Your task to perform on an android device: Open Amazon Image 0: 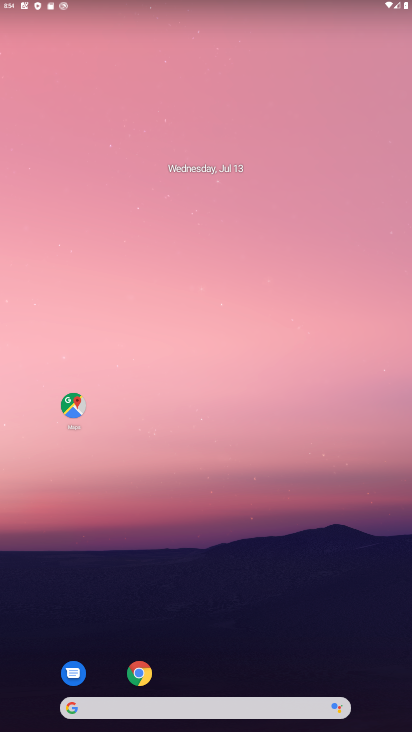
Step 0: click (141, 674)
Your task to perform on an android device: Open Amazon Image 1: 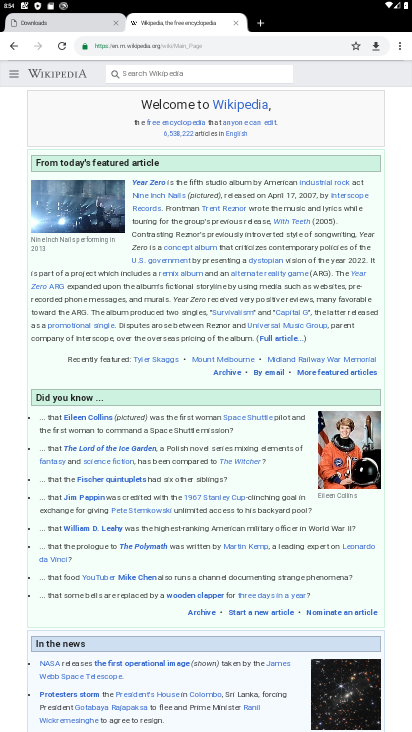
Step 1: click (256, 19)
Your task to perform on an android device: Open Amazon Image 2: 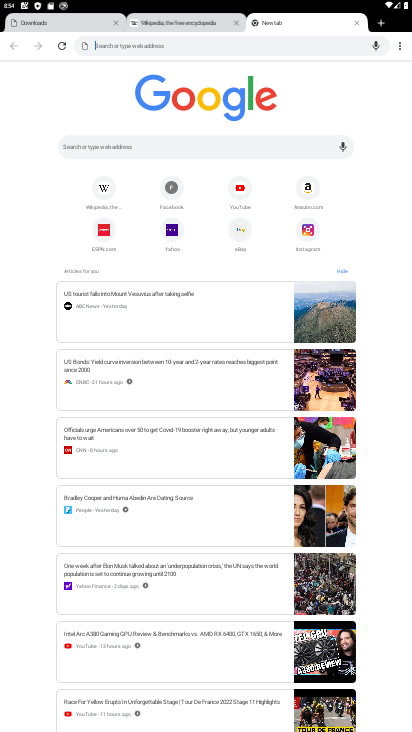
Step 2: click (315, 192)
Your task to perform on an android device: Open Amazon Image 3: 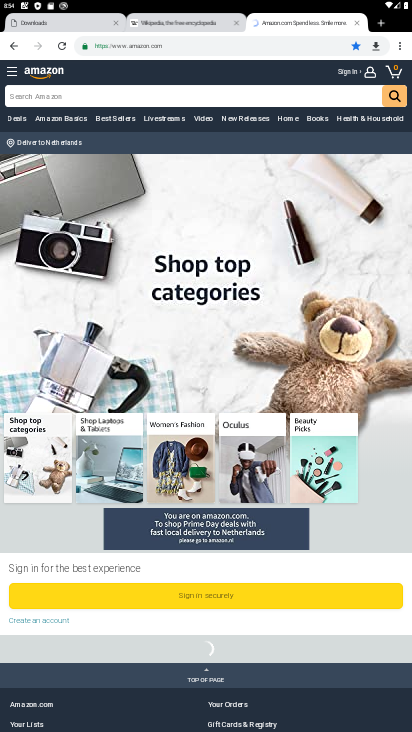
Step 3: task complete